Your task to perform on an android device: check data usage Image 0: 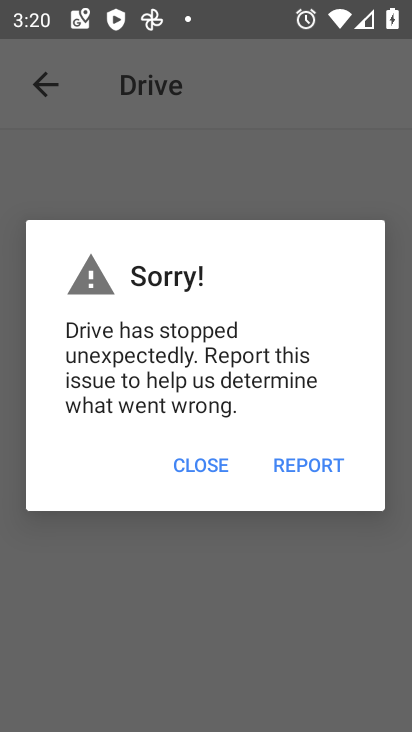
Step 0: press home button
Your task to perform on an android device: check data usage Image 1: 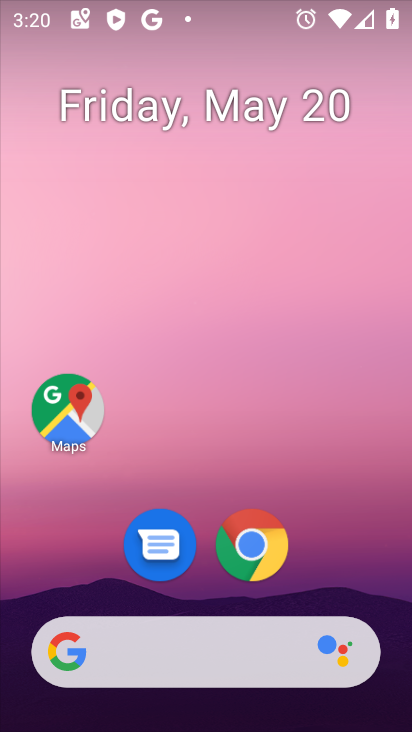
Step 1: drag from (327, 589) to (333, 99)
Your task to perform on an android device: check data usage Image 2: 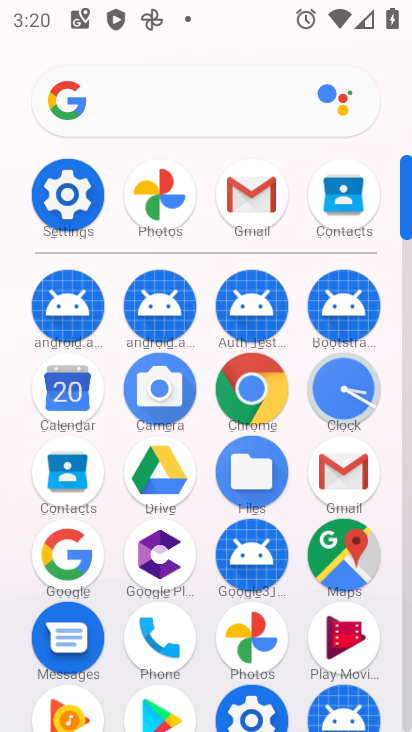
Step 2: click (78, 197)
Your task to perform on an android device: check data usage Image 3: 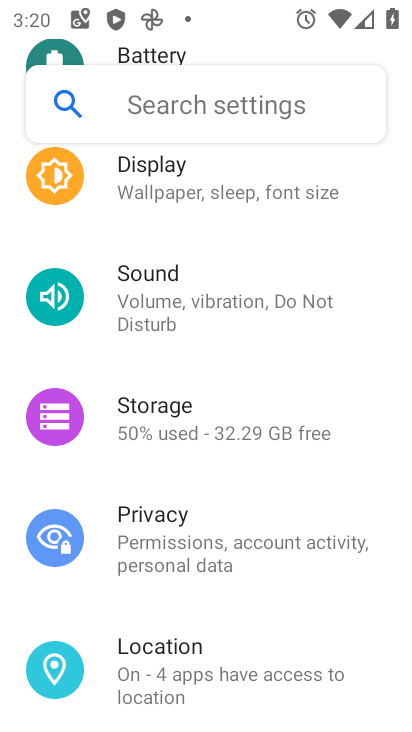
Step 3: drag from (279, 250) to (235, 624)
Your task to perform on an android device: check data usage Image 4: 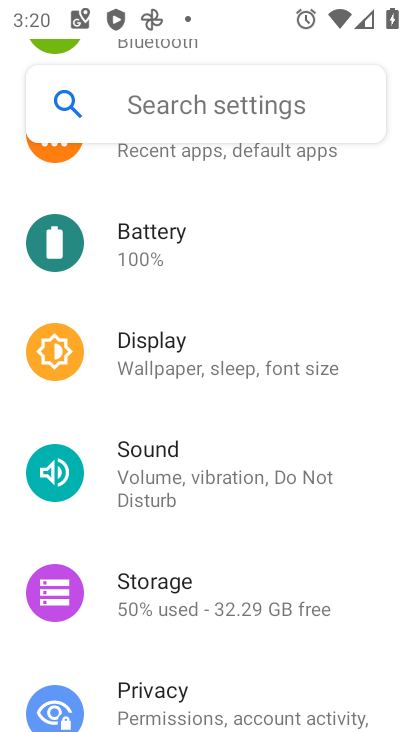
Step 4: drag from (229, 262) to (239, 616)
Your task to perform on an android device: check data usage Image 5: 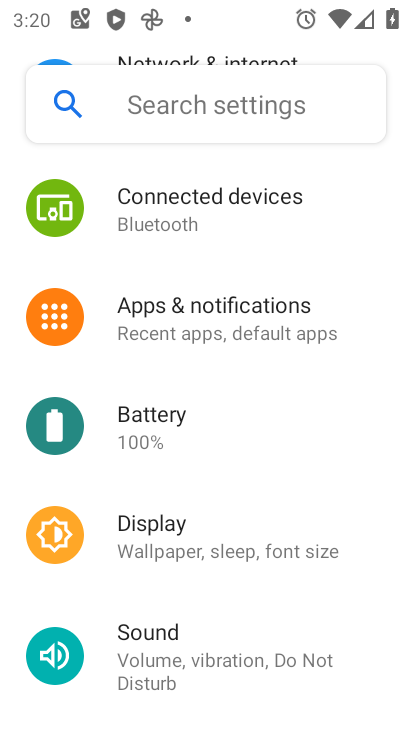
Step 5: drag from (264, 256) to (233, 636)
Your task to perform on an android device: check data usage Image 6: 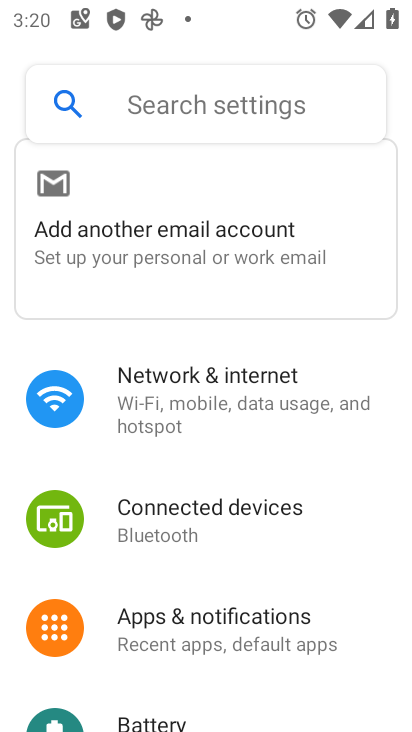
Step 6: click (203, 380)
Your task to perform on an android device: check data usage Image 7: 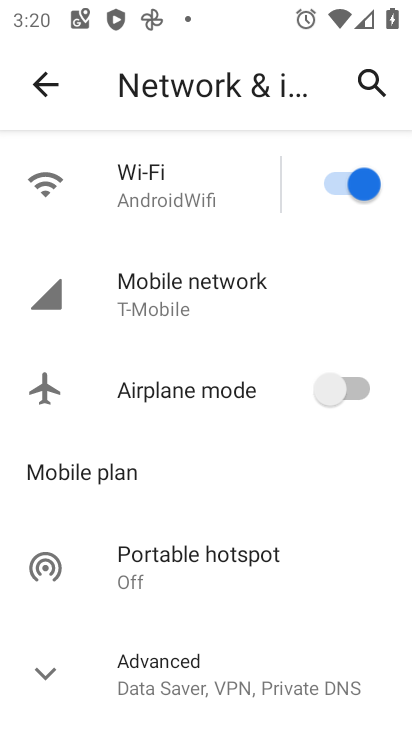
Step 7: click (210, 281)
Your task to perform on an android device: check data usage Image 8: 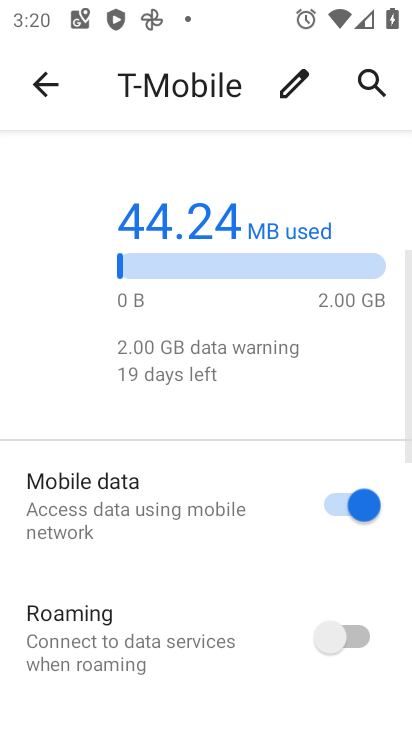
Step 8: drag from (187, 604) to (216, 288)
Your task to perform on an android device: check data usage Image 9: 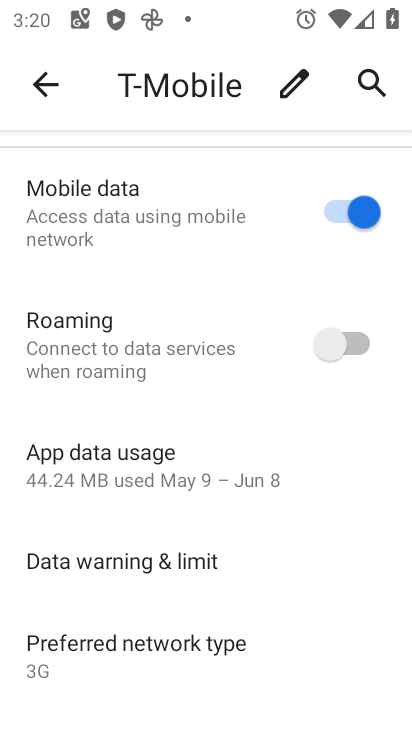
Step 9: click (140, 461)
Your task to perform on an android device: check data usage Image 10: 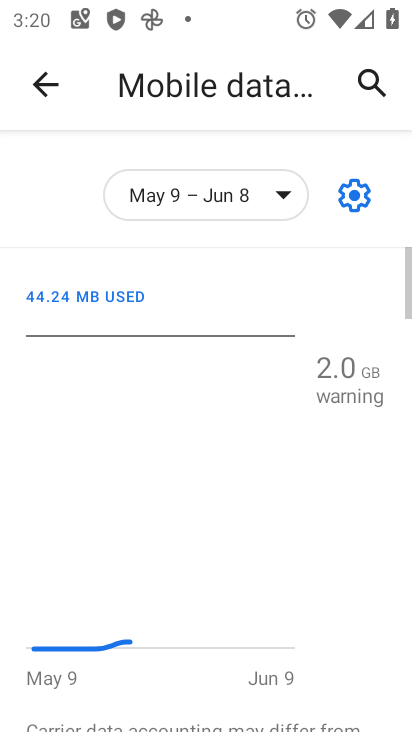
Step 10: task complete